Your task to perform on an android device: turn vacation reply on in the gmail app Image 0: 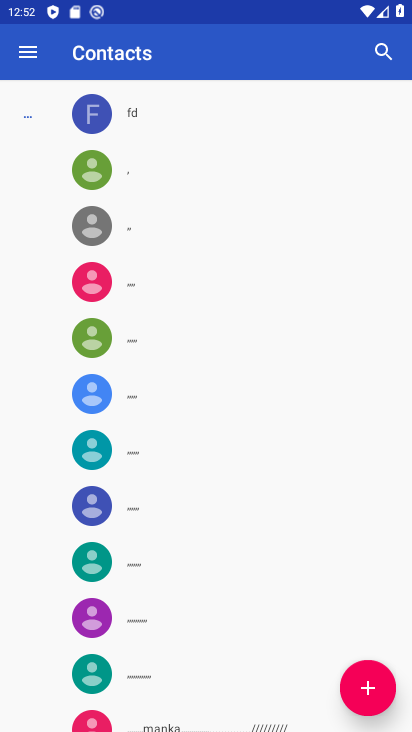
Step 0: press home button
Your task to perform on an android device: turn vacation reply on in the gmail app Image 1: 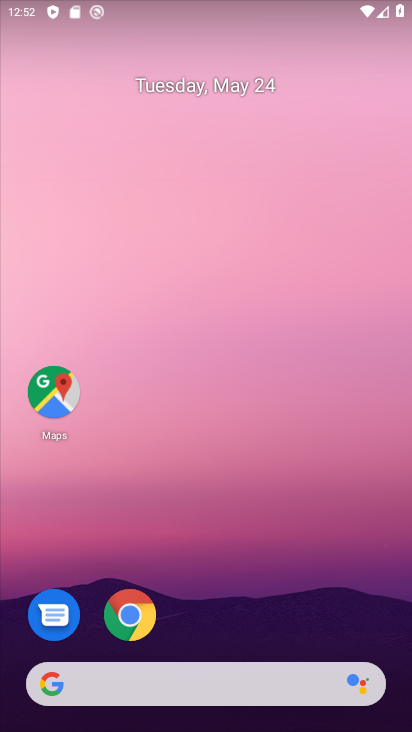
Step 1: press home button
Your task to perform on an android device: turn vacation reply on in the gmail app Image 2: 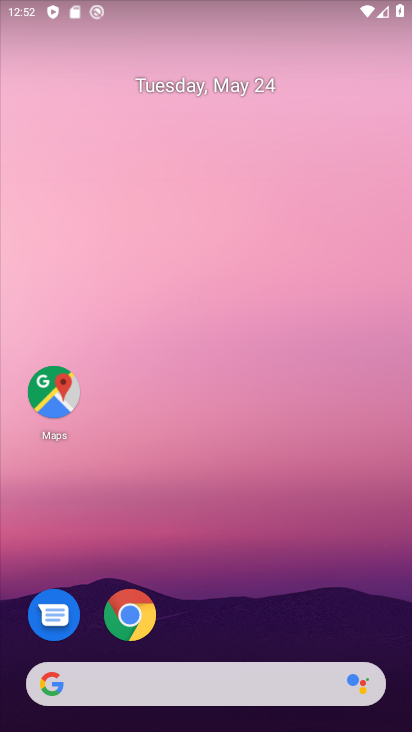
Step 2: drag from (234, 520) to (243, 66)
Your task to perform on an android device: turn vacation reply on in the gmail app Image 3: 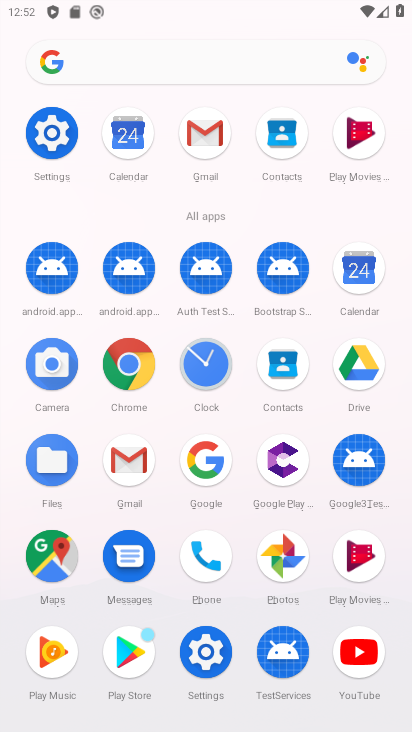
Step 3: click (128, 448)
Your task to perform on an android device: turn vacation reply on in the gmail app Image 4: 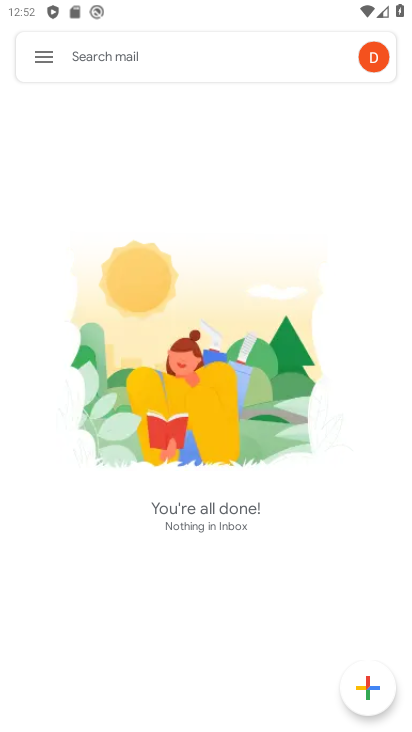
Step 4: click (37, 54)
Your task to perform on an android device: turn vacation reply on in the gmail app Image 5: 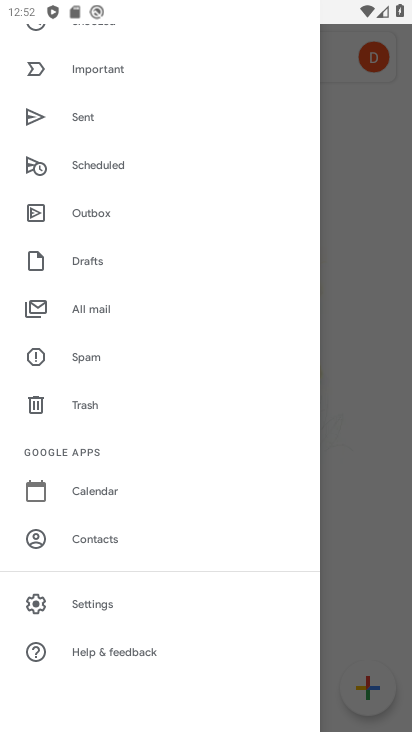
Step 5: click (115, 606)
Your task to perform on an android device: turn vacation reply on in the gmail app Image 6: 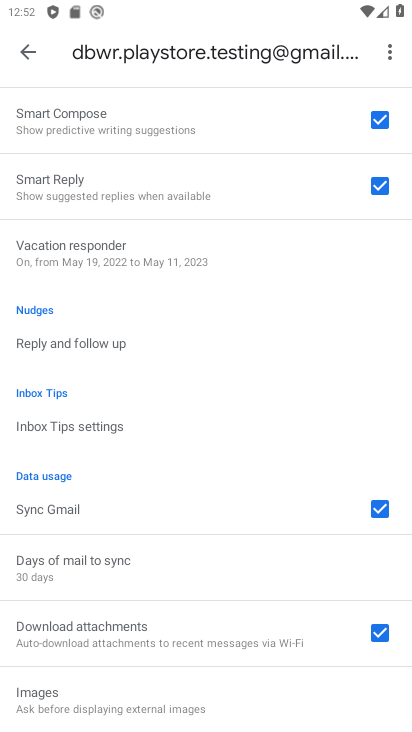
Step 6: click (146, 247)
Your task to perform on an android device: turn vacation reply on in the gmail app Image 7: 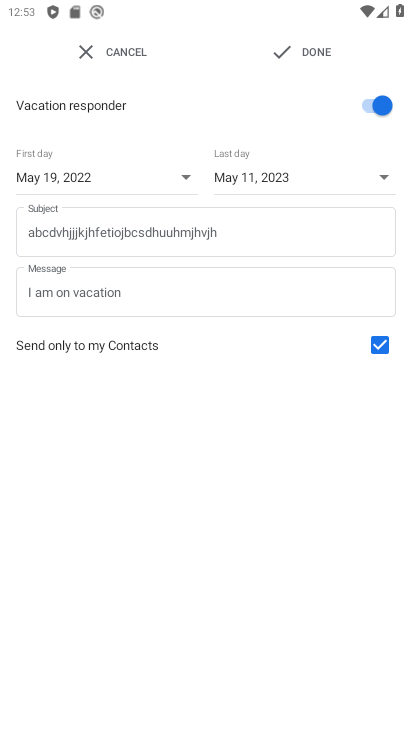
Step 7: task complete